Your task to perform on an android device: turn off data saver in the chrome app Image 0: 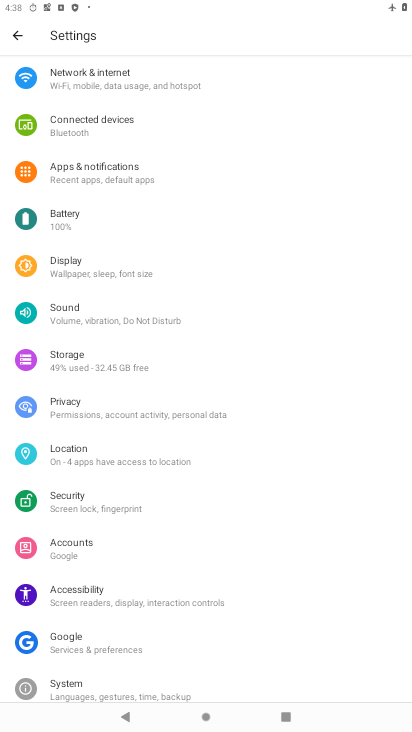
Step 0: press home button
Your task to perform on an android device: turn off data saver in the chrome app Image 1: 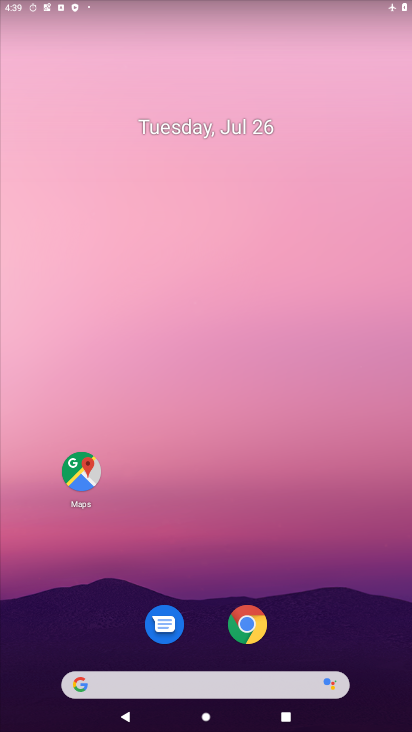
Step 1: drag from (269, 684) to (353, 5)
Your task to perform on an android device: turn off data saver in the chrome app Image 2: 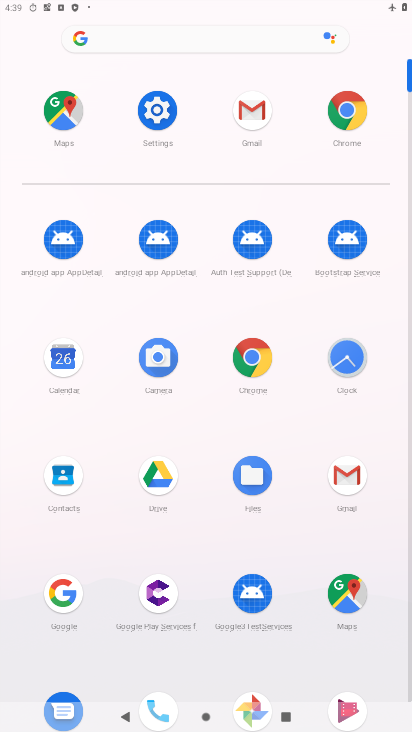
Step 2: click (265, 360)
Your task to perform on an android device: turn off data saver in the chrome app Image 3: 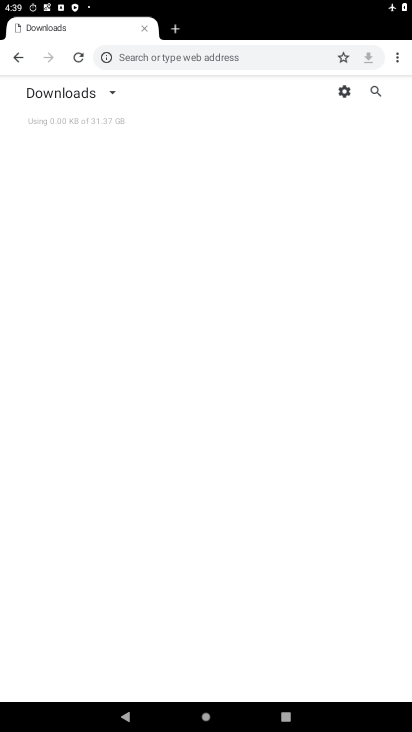
Step 3: click (398, 57)
Your task to perform on an android device: turn off data saver in the chrome app Image 4: 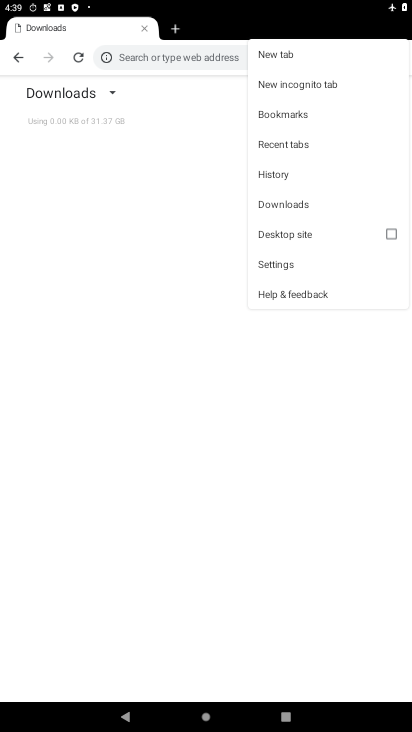
Step 4: click (300, 264)
Your task to perform on an android device: turn off data saver in the chrome app Image 5: 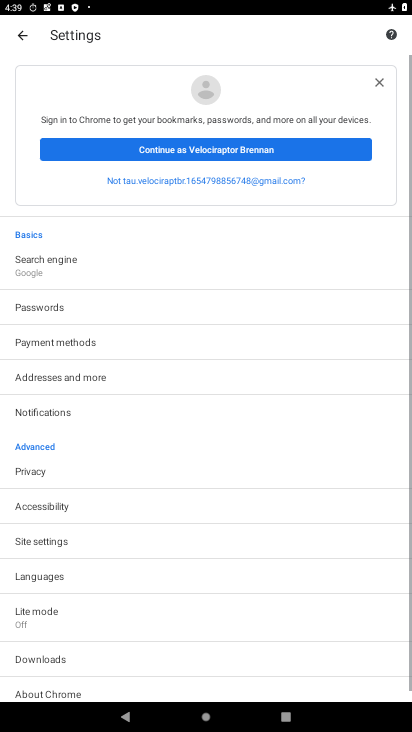
Step 5: click (41, 627)
Your task to perform on an android device: turn off data saver in the chrome app Image 6: 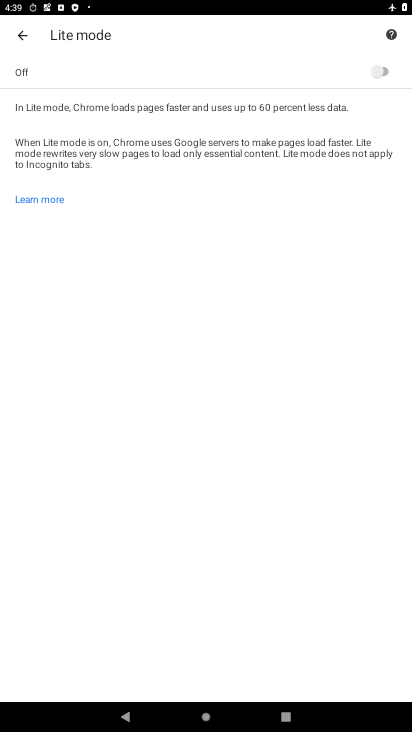
Step 6: task complete